Your task to perform on an android device: open chrome privacy settings Image 0: 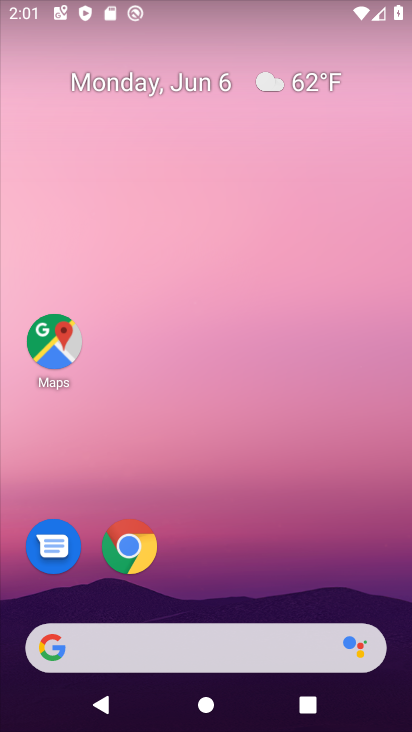
Step 0: drag from (282, 572) to (253, 235)
Your task to perform on an android device: open chrome privacy settings Image 1: 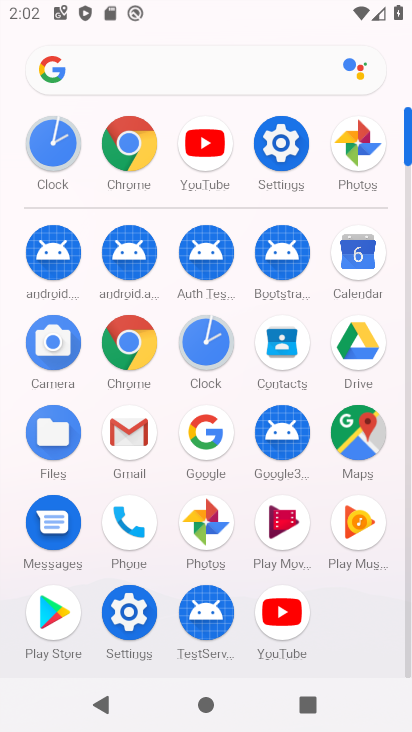
Step 1: click (277, 140)
Your task to perform on an android device: open chrome privacy settings Image 2: 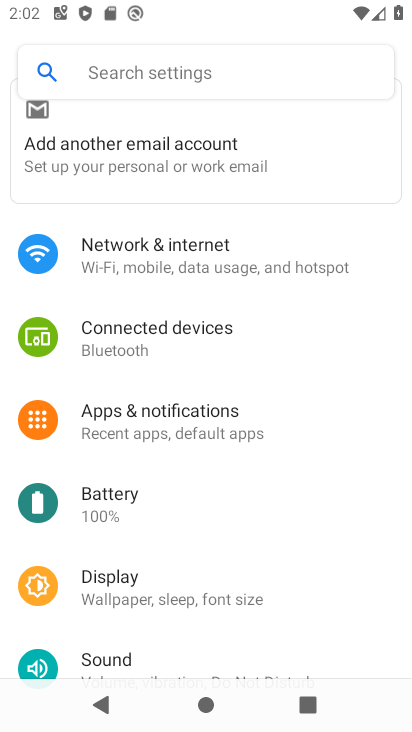
Step 2: drag from (221, 582) to (233, 230)
Your task to perform on an android device: open chrome privacy settings Image 3: 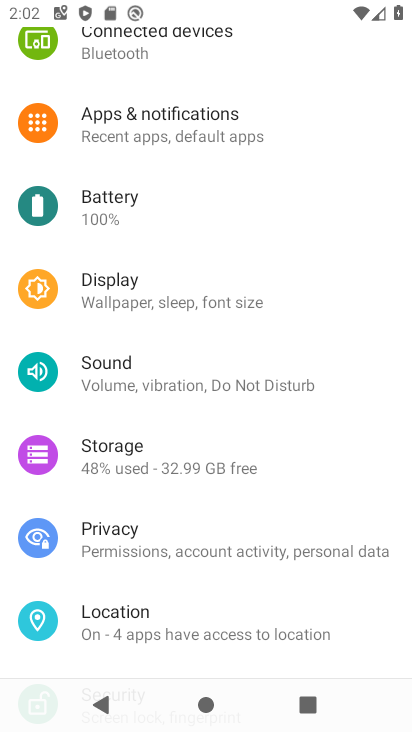
Step 3: click (127, 533)
Your task to perform on an android device: open chrome privacy settings Image 4: 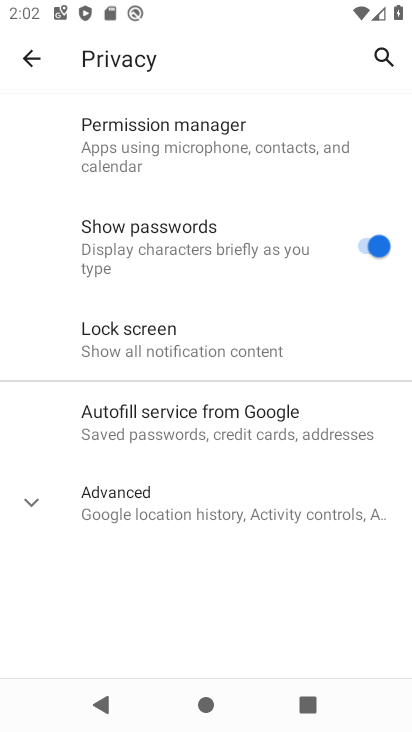
Step 4: task complete